Your task to perform on an android device: Do I have any events this weekend? Image 0: 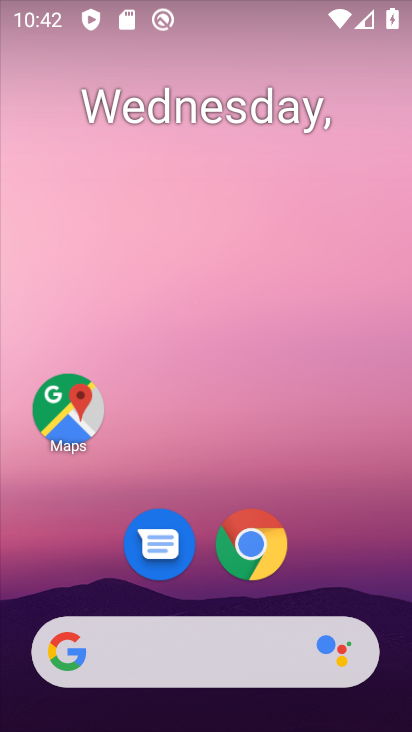
Step 0: drag from (344, 459) to (353, 185)
Your task to perform on an android device: Do I have any events this weekend? Image 1: 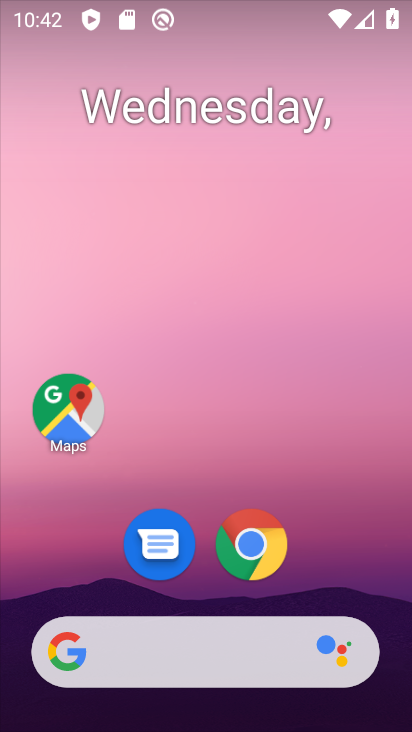
Step 1: drag from (245, 595) to (213, 53)
Your task to perform on an android device: Do I have any events this weekend? Image 2: 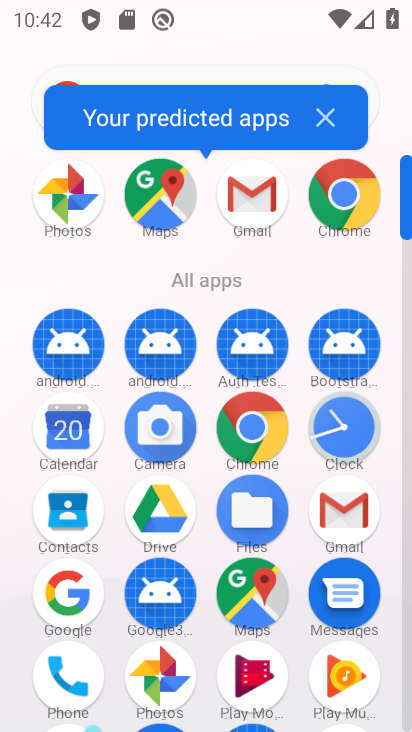
Step 2: click (52, 434)
Your task to perform on an android device: Do I have any events this weekend? Image 3: 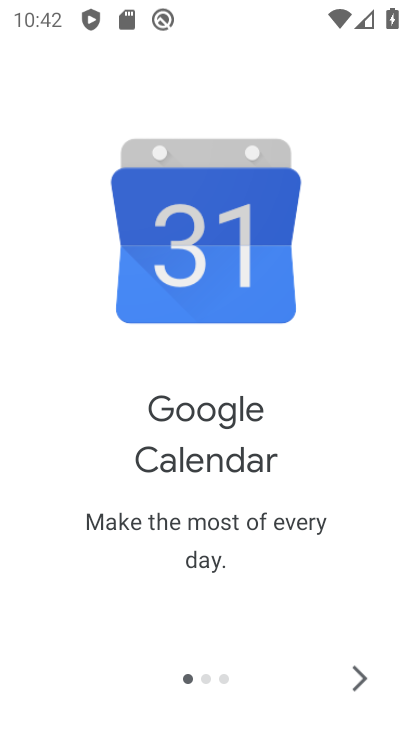
Step 3: click (368, 673)
Your task to perform on an android device: Do I have any events this weekend? Image 4: 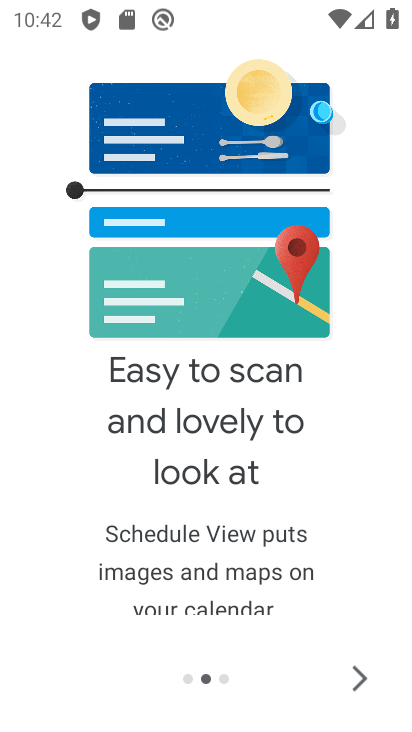
Step 4: click (368, 673)
Your task to perform on an android device: Do I have any events this weekend? Image 5: 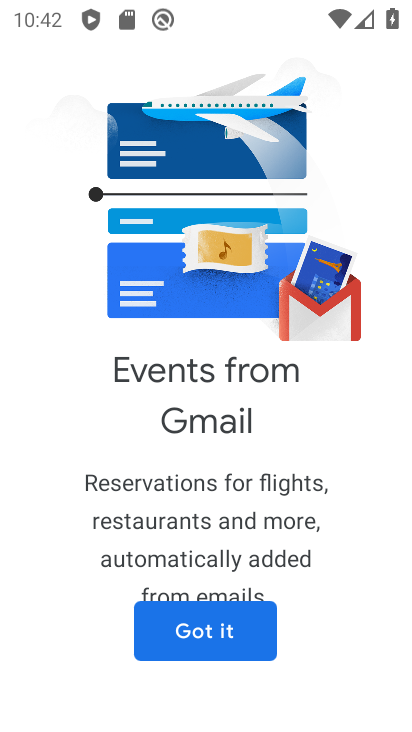
Step 5: click (196, 618)
Your task to perform on an android device: Do I have any events this weekend? Image 6: 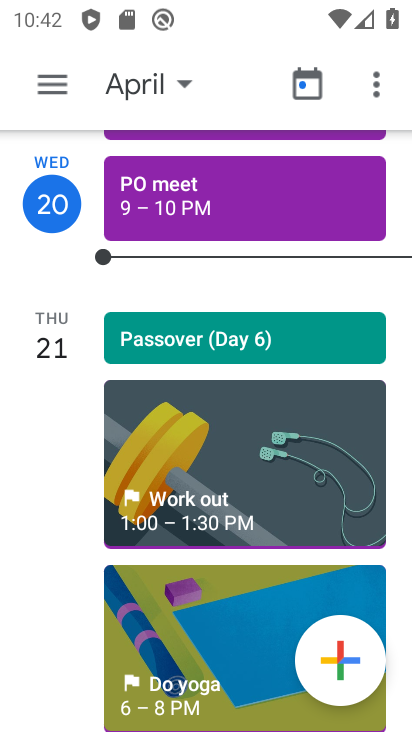
Step 6: click (48, 76)
Your task to perform on an android device: Do I have any events this weekend? Image 7: 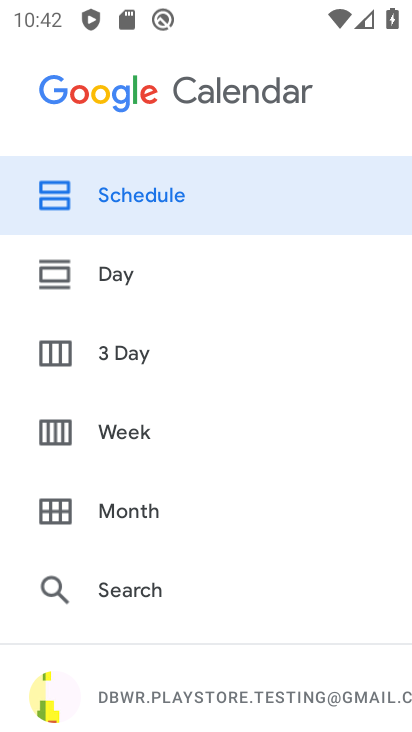
Step 7: click (161, 422)
Your task to perform on an android device: Do I have any events this weekend? Image 8: 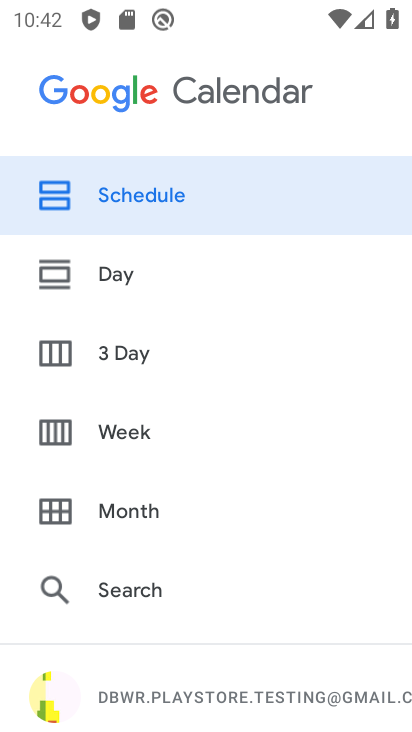
Step 8: click (189, 436)
Your task to perform on an android device: Do I have any events this weekend? Image 9: 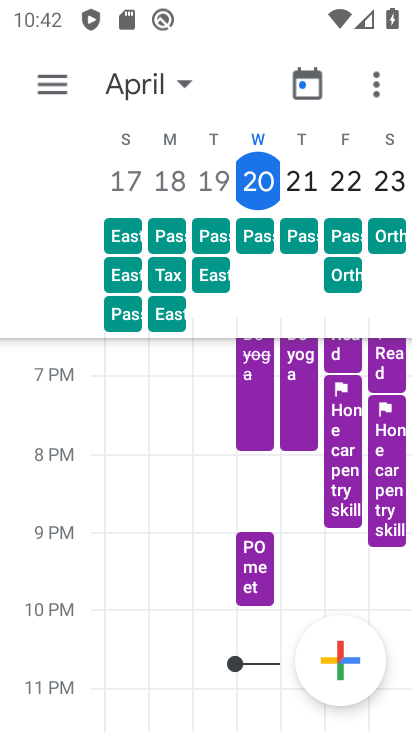
Step 9: click (385, 183)
Your task to perform on an android device: Do I have any events this weekend? Image 10: 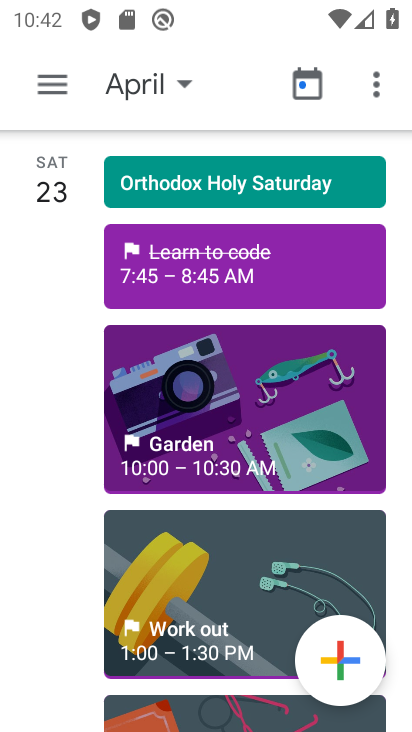
Step 10: task complete